Your task to perform on an android device: Open sound settings Image 0: 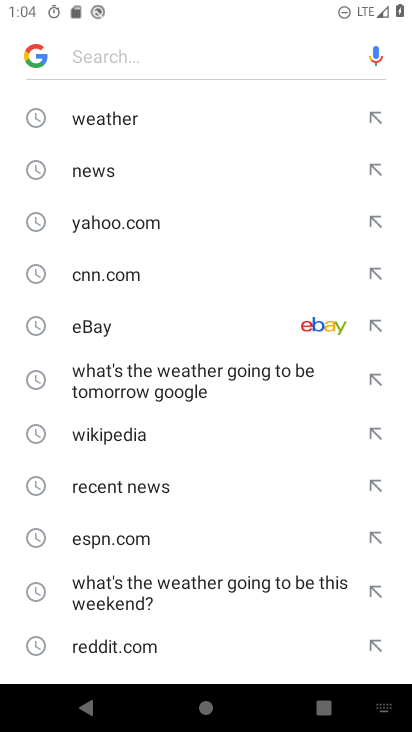
Step 0: press home button
Your task to perform on an android device: Open sound settings Image 1: 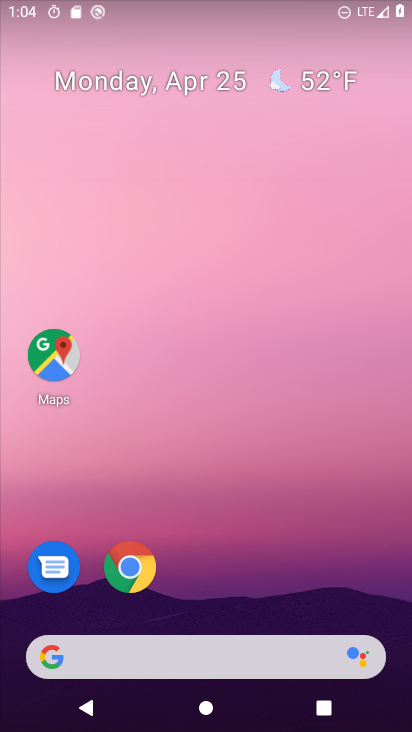
Step 1: drag from (243, 572) to (290, 0)
Your task to perform on an android device: Open sound settings Image 2: 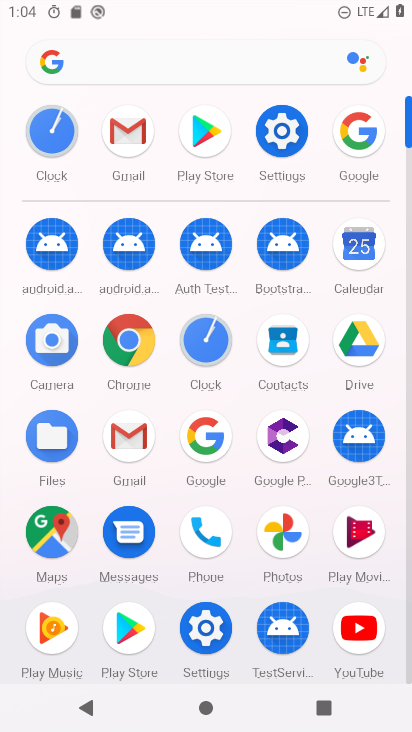
Step 2: click (283, 127)
Your task to perform on an android device: Open sound settings Image 3: 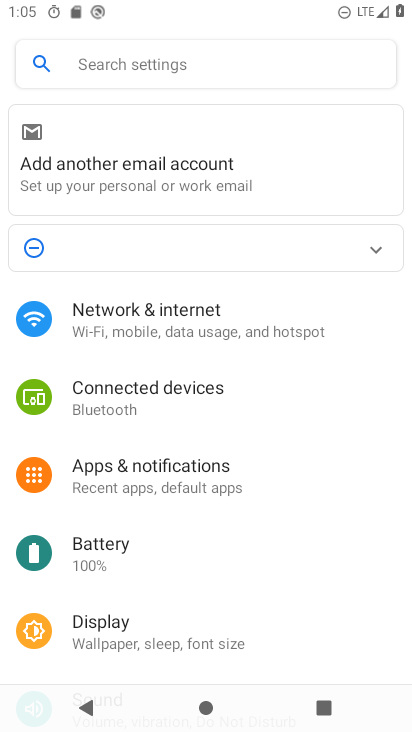
Step 3: drag from (191, 578) to (221, 147)
Your task to perform on an android device: Open sound settings Image 4: 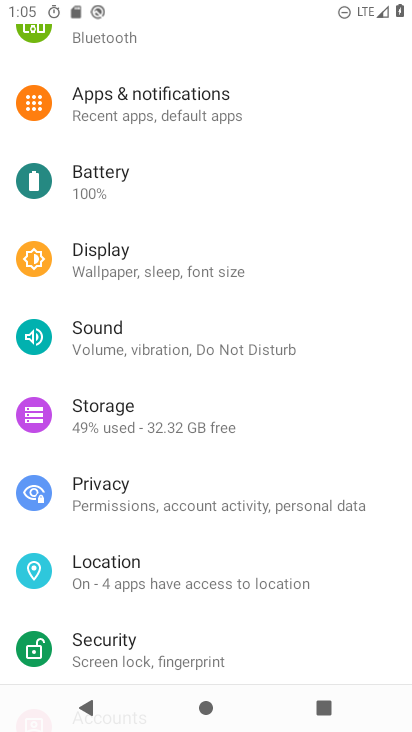
Step 4: click (196, 346)
Your task to perform on an android device: Open sound settings Image 5: 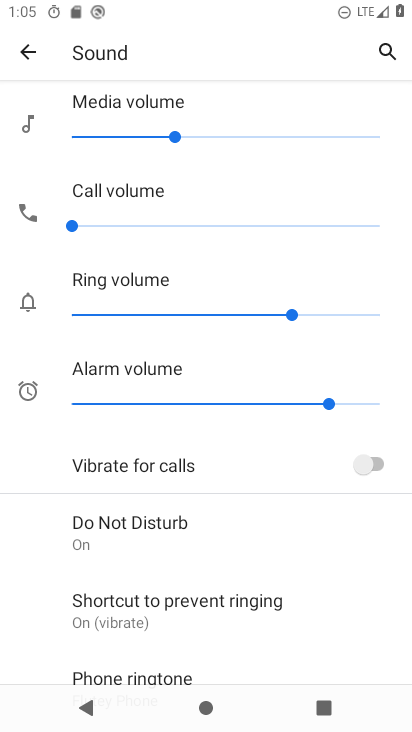
Step 5: task complete